Your task to perform on an android device: check data usage Image 0: 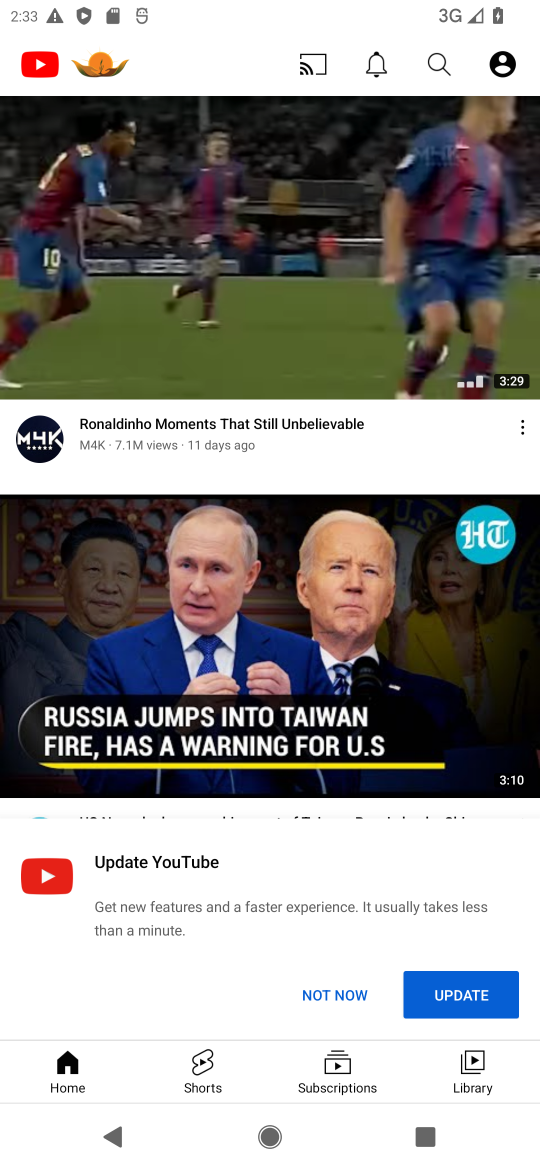
Step 0: task complete